Your task to perform on an android device: turn off picture-in-picture Image 0: 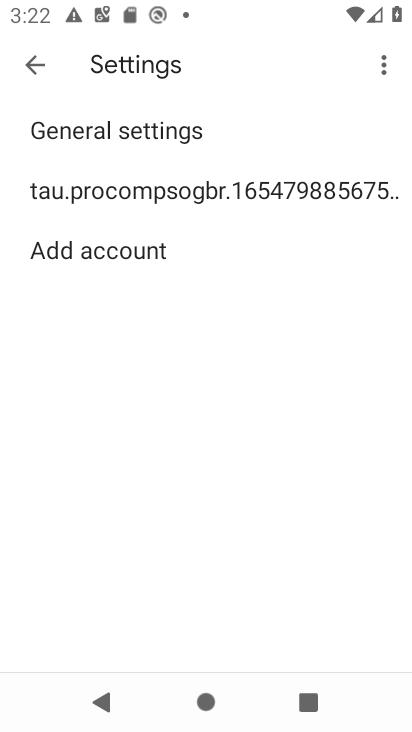
Step 0: press home button
Your task to perform on an android device: turn off picture-in-picture Image 1: 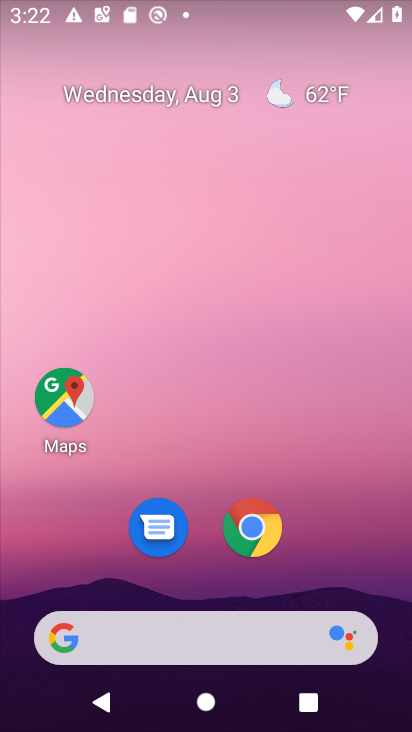
Step 1: drag from (373, 528) to (214, 81)
Your task to perform on an android device: turn off picture-in-picture Image 2: 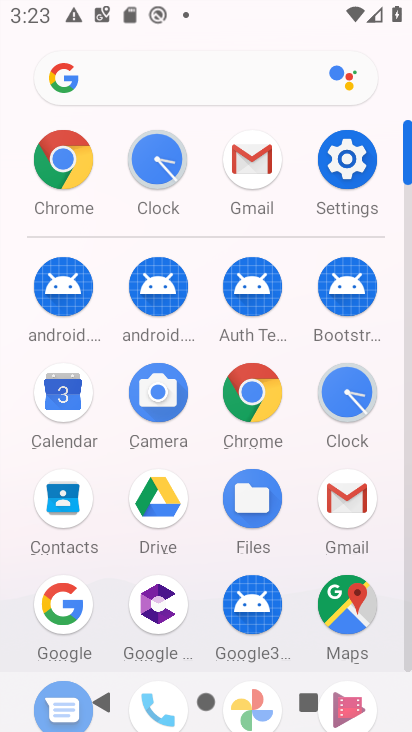
Step 2: click (271, 398)
Your task to perform on an android device: turn off picture-in-picture Image 3: 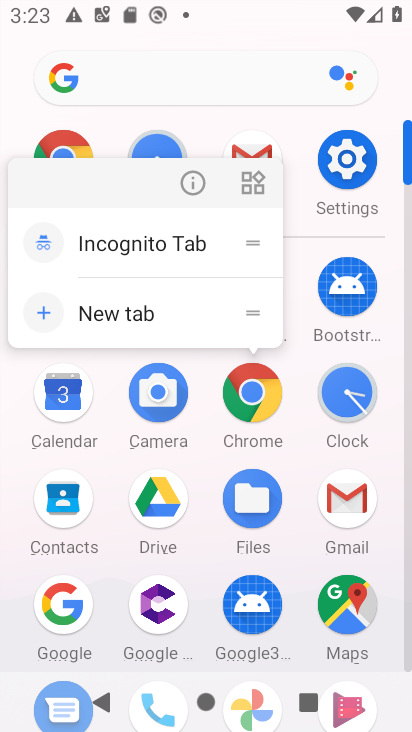
Step 3: click (198, 177)
Your task to perform on an android device: turn off picture-in-picture Image 4: 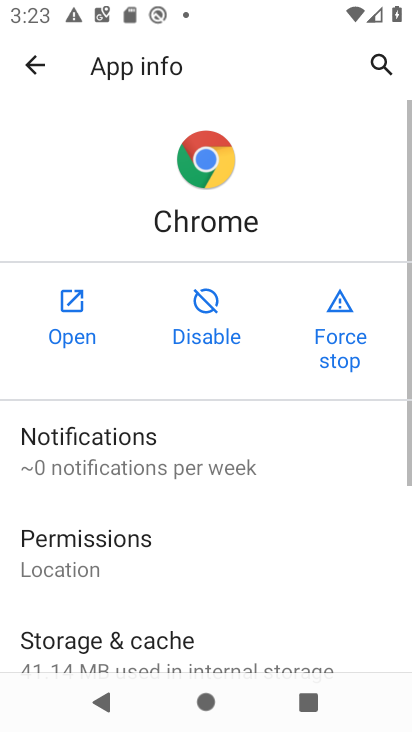
Step 4: drag from (337, 556) to (328, 135)
Your task to perform on an android device: turn off picture-in-picture Image 5: 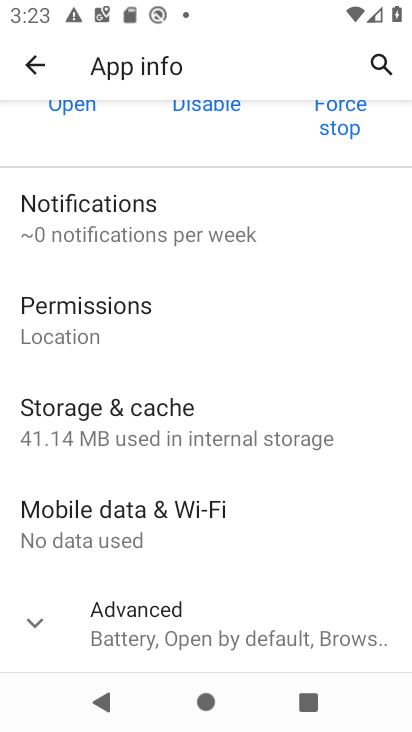
Step 5: click (168, 617)
Your task to perform on an android device: turn off picture-in-picture Image 6: 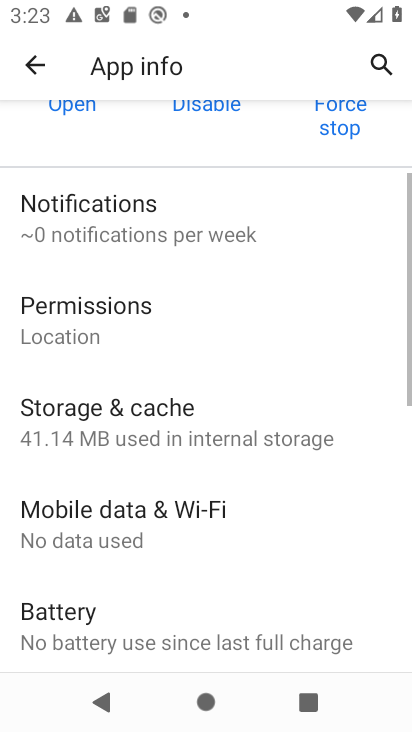
Step 6: drag from (378, 586) to (354, 159)
Your task to perform on an android device: turn off picture-in-picture Image 7: 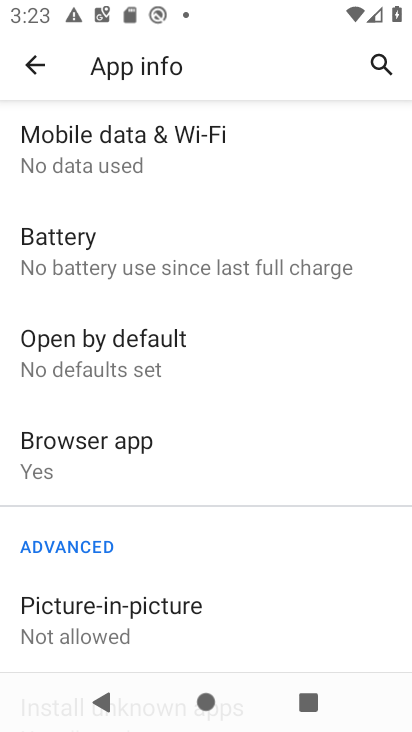
Step 7: drag from (304, 670) to (289, 350)
Your task to perform on an android device: turn off picture-in-picture Image 8: 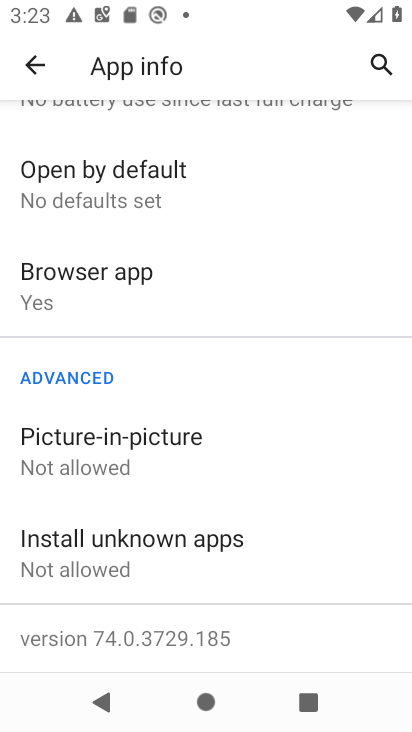
Step 8: click (164, 438)
Your task to perform on an android device: turn off picture-in-picture Image 9: 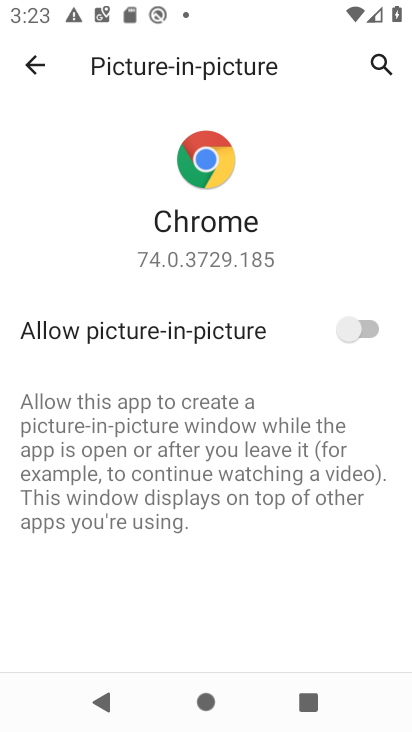
Step 9: task complete